Your task to perform on an android device: Open location settings Image 0: 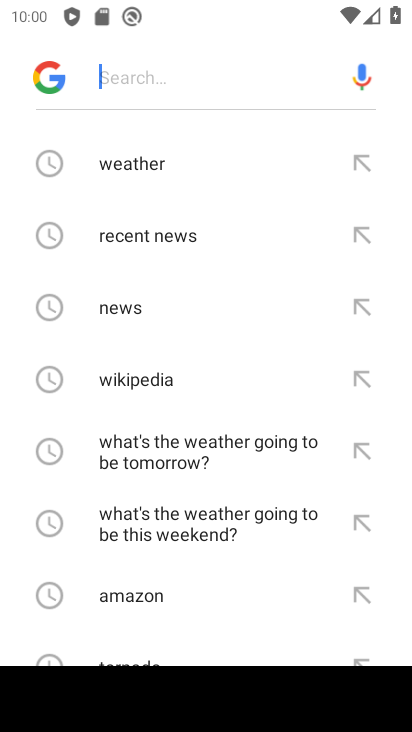
Step 0: press home button
Your task to perform on an android device: Open location settings Image 1: 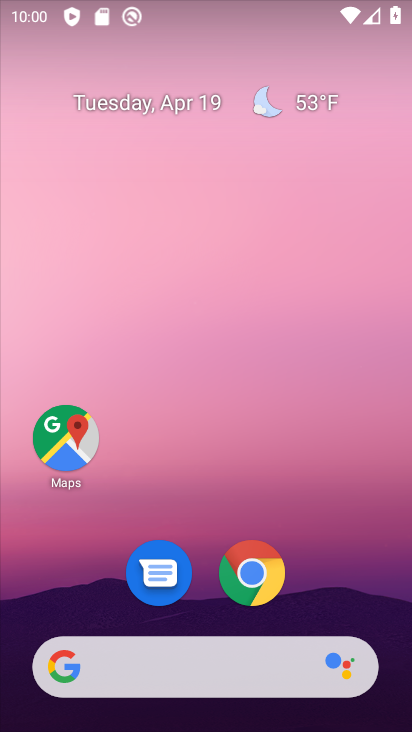
Step 1: drag from (204, 715) to (170, 76)
Your task to perform on an android device: Open location settings Image 2: 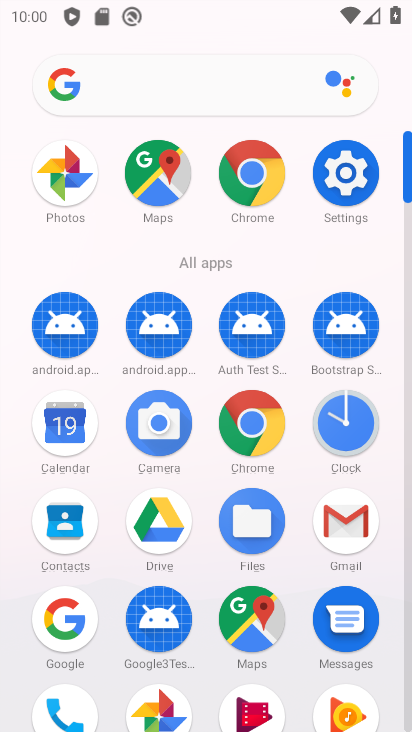
Step 2: click (347, 180)
Your task to perform on an android device: Open location settings Image 3: 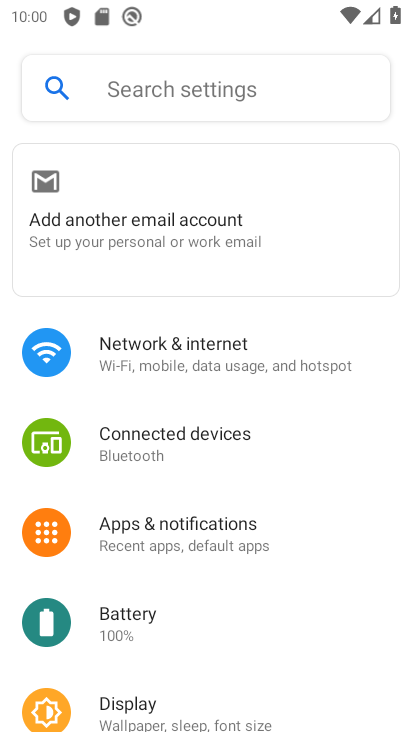
Step 3: drag from (215, 677) to (197, 217)
Your task to perform on an android device: Open location settings Image 4: 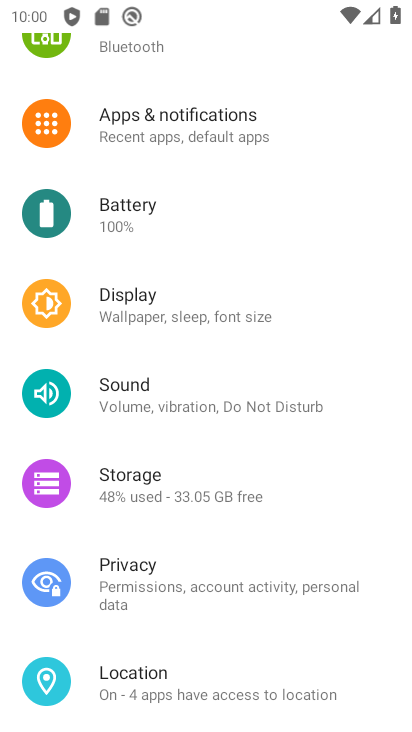
Step 4: drag from (198, 643) to (188, 182)
Your task to perform on an android device: Open location settings Image 5: 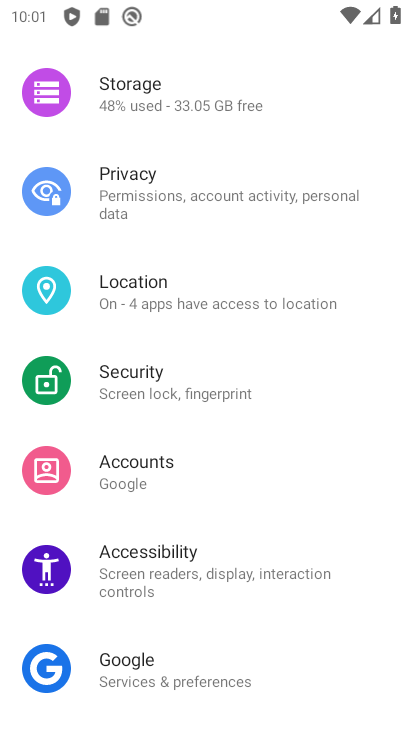
Step 5: click (140, 290)
Your task to perform on an android device: Open location settings Image 6: 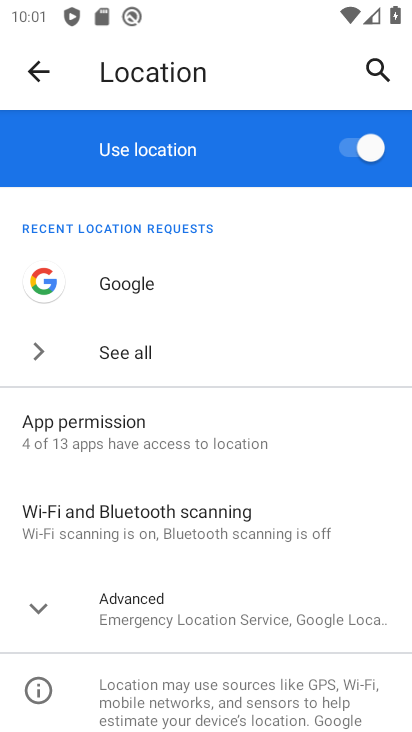
Step 6: task complete